Your task to perform on an android device: Open the phone app and click the voicemail tab. Image 0: 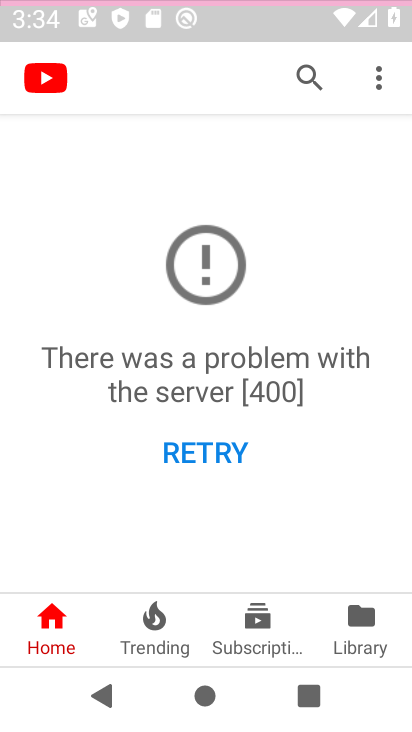
Step 0: click (320, 60)
Your task to perform on an android device: Open the phone app and click the voicemail tab. Image 1: 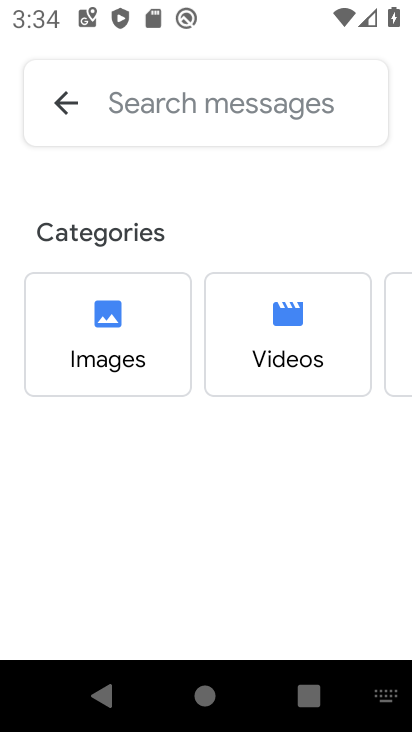
Step 1: press home button
Your task to perform on an android device: Open the phone app and click the voicemail tab. Image 2: 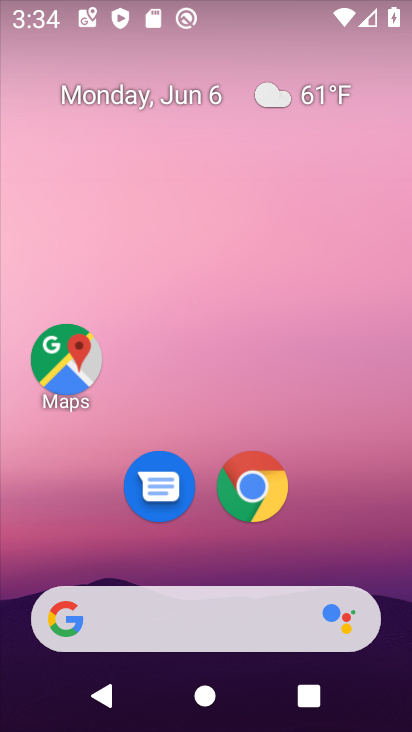
Step 2: drag from (365, 534) to (337, 154)
Your task to perform on an android device: Open the phone app and click the voicemail tab. Image 3: 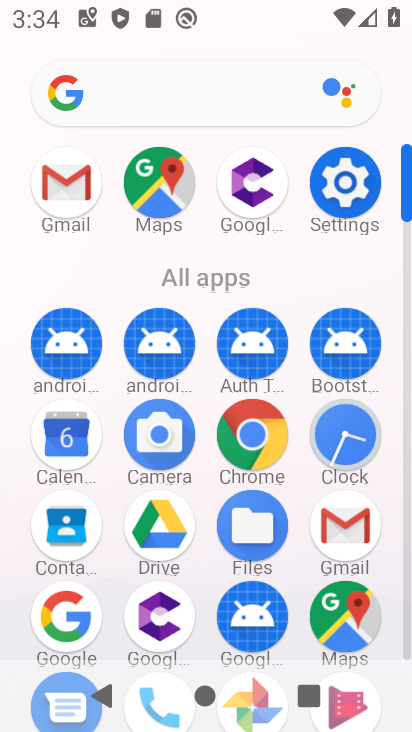
Step 3: drag from (206, 551) to (234, 222)
Your task to perform on an android device: Open the phone app and click the voicemail tab. Image 4: 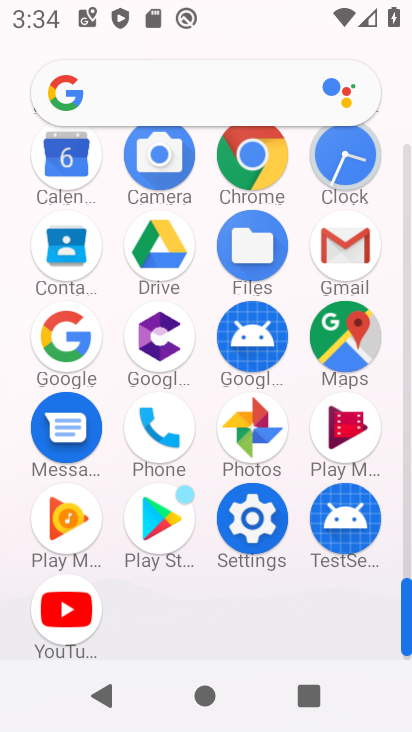
Step 4: click (164, 441)
Your task to perform on an android device: Open the phone app and click the voicemail tab. Image 5: 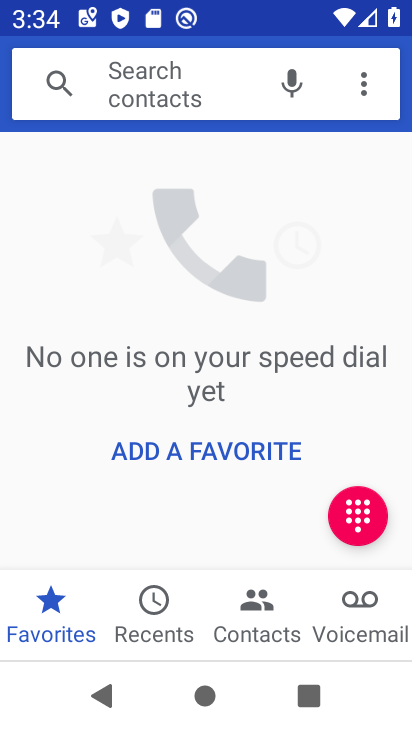
Step 5: click (367, 603)
Your task to perform on an android device: Open the phone app and click the voicemail tab. Image 6: 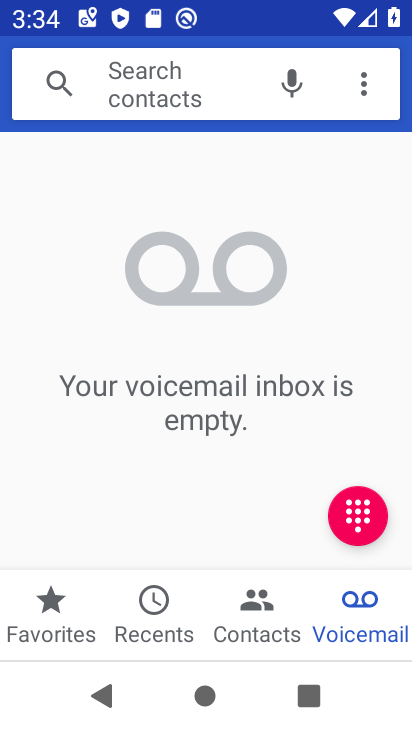
Step 6: task complete